Your task to perform on an android device: turn on notifications settings in the gmail app Image 0: 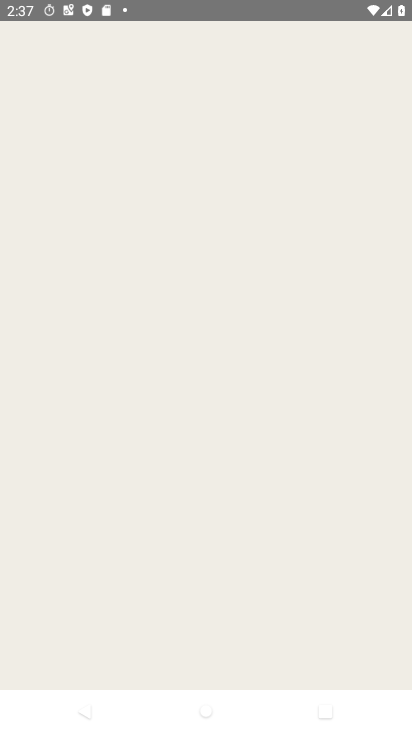
Step 0: click (123, 599)
Your task to perform on an android device: turn on notifications settings in the gmail app Image 1: 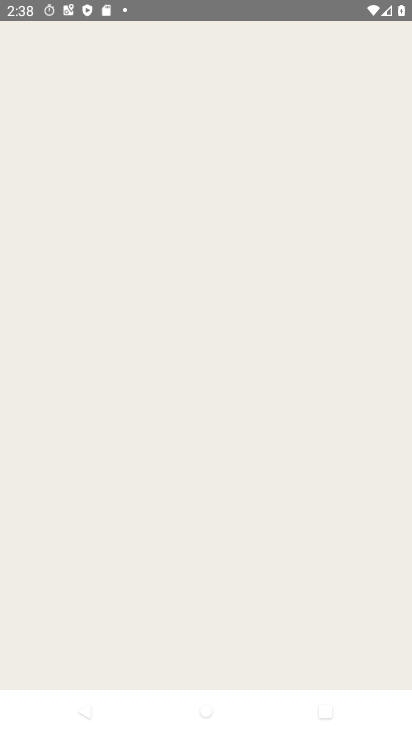
Step 1: press home button
Your task to perform on an android device: turn on notifications settings in the gmail app Image 2: 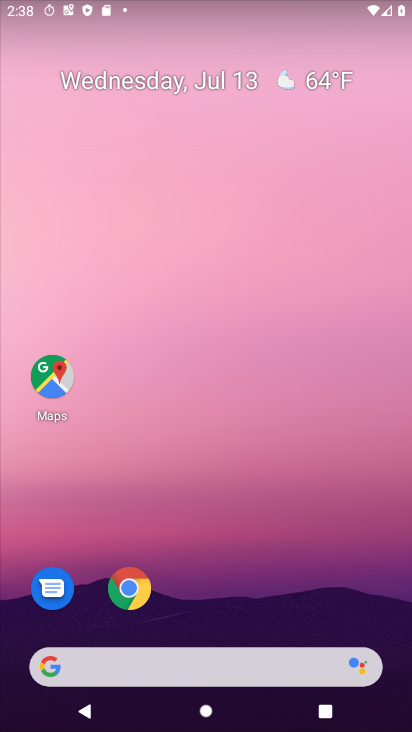
Step 2: drag from (192, 553) to (188, 296)
Your task to perform on an android device: turn on notifications settings in the gmail app Image 3: 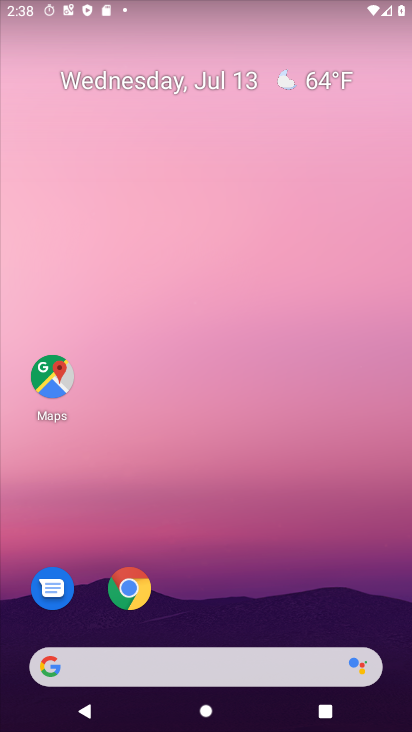
Step 3: drag from (221, 641) to (246, 204)
Your task to perform on an android device: turn on notifications settings in the gmail app Image 4: 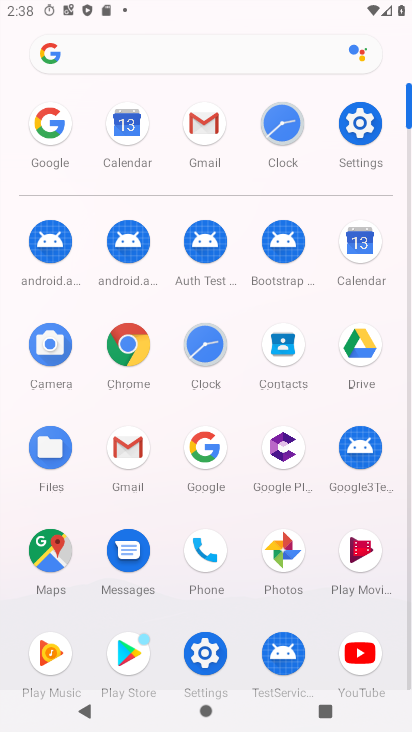
Step 4: click (209, 138)
Your task to perform on an android device: turn on notifications settings in the gmail app Image 5: 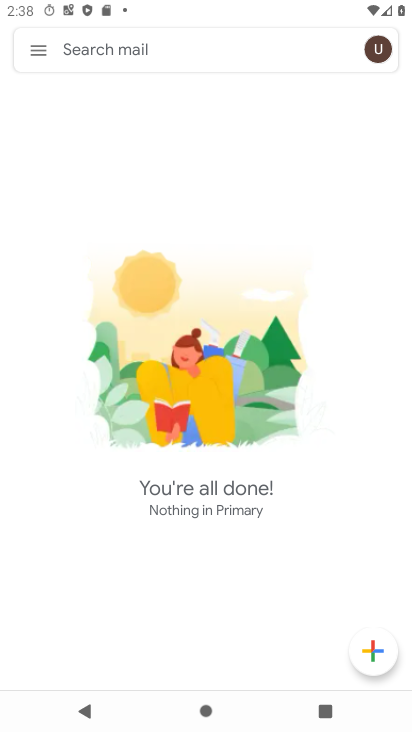
Step 5: click (34, 49)
Your task to perform on an android device: turn on notifications settings in the gmail app Image 6: 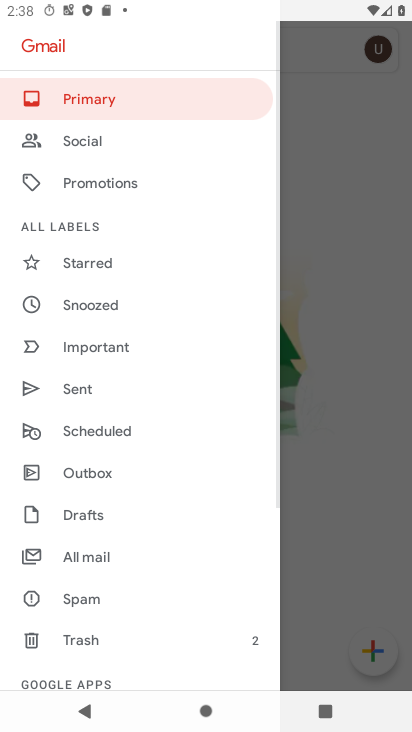
Step 6: drag from (67, 643) to (100, 281)
Your task to perform on an android device: turn on notifications settings in the gmail app Image 7: 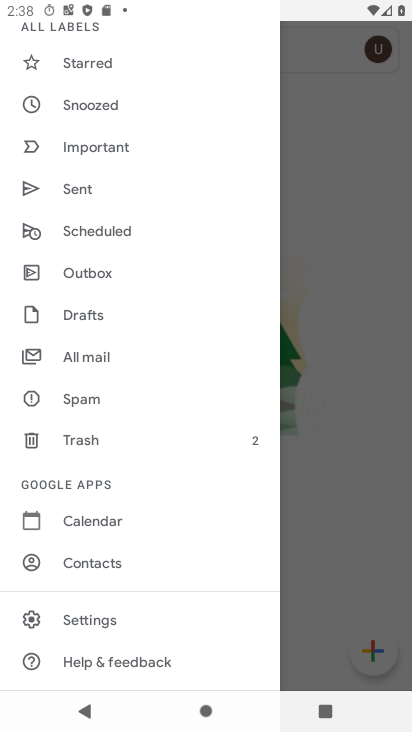
Step 7: click (97, 615)
Your task to perform on an android device: turn on notifications settings in the gmail app Image 8: 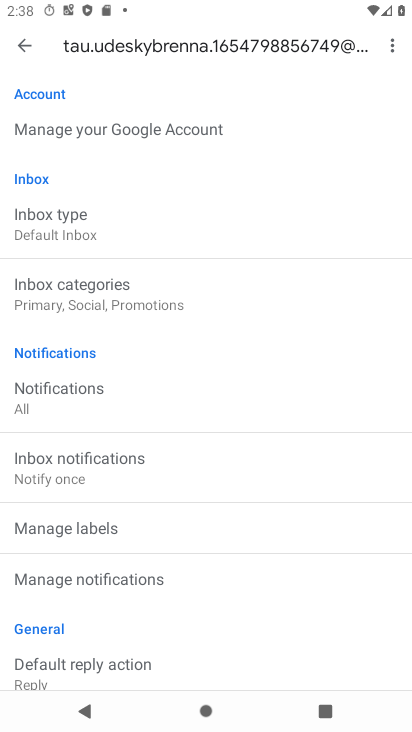
Step 8: click (65, 572)
Your task to perform on an android device: turn on notifications settings in the gmail app Image 9: 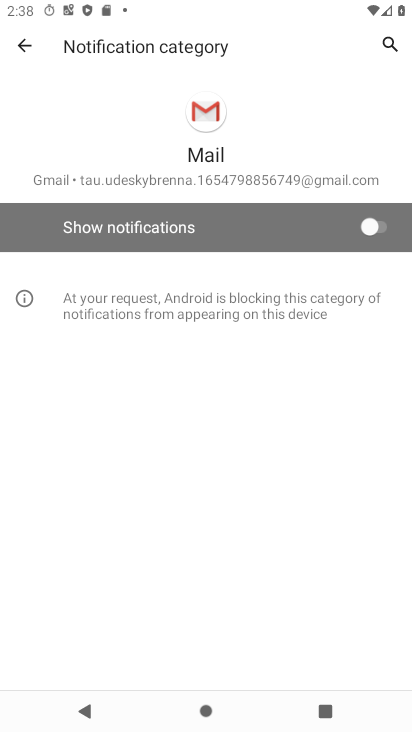
Step 9: click (385, 228)
Your task to perform on an android device: turn on notifications settings in the gmail app Image 10: 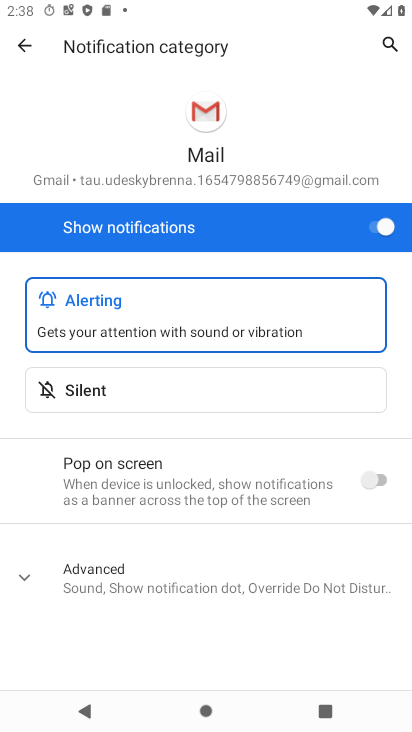
Step 10: task complete